Your task to perform on an android device: Open Google Image 0: 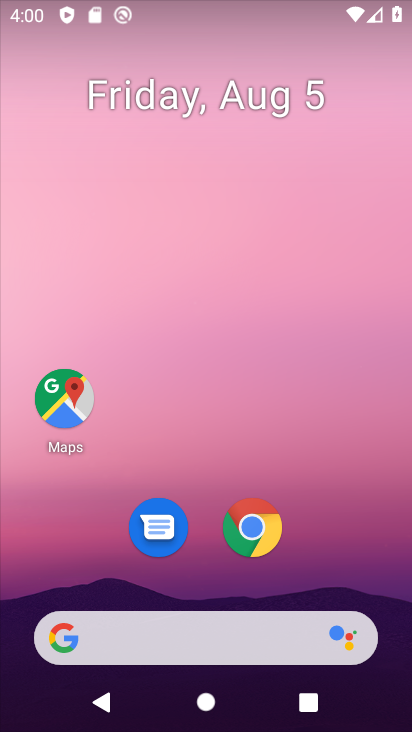
Step 0: drag from (192, 579) to (199, 8)
Your task to perform on an android device: Open Google Image 1: 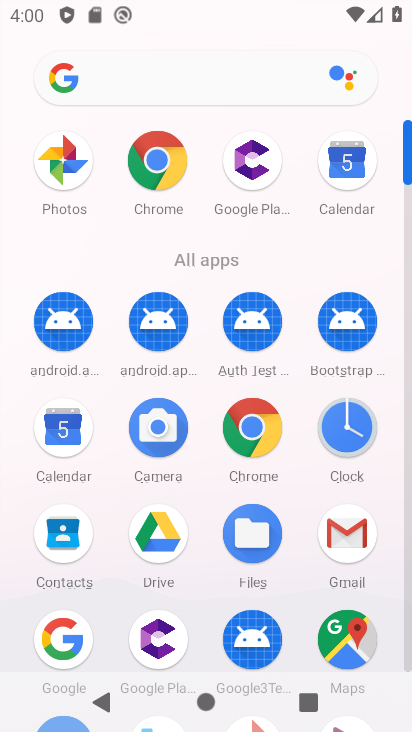
Step 1: click (61, 630)
Your task to perform on an android device: Open Google Image 2: 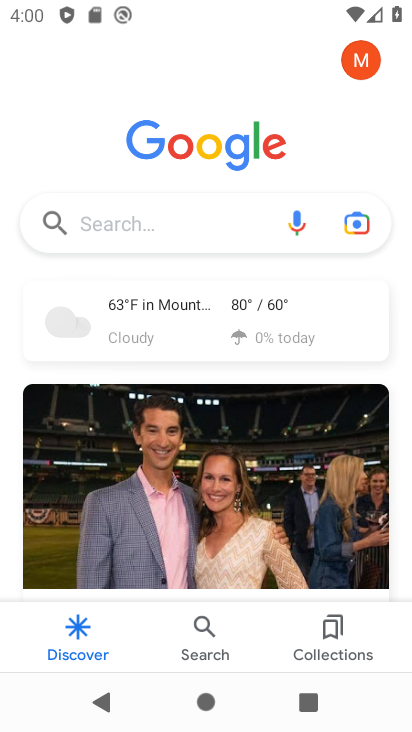
Step 2: click (330, 632)
Your task to perform on an android device: Open Google Image 3: 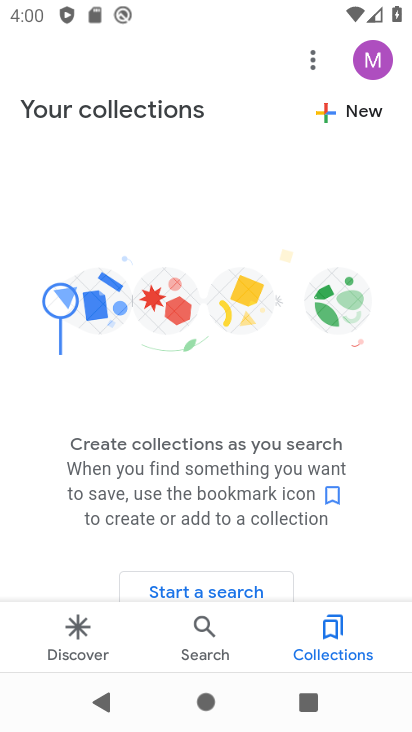
Step 3: task complete